Your task to perform on an android device: open a new tab in the chrome app Image 0: 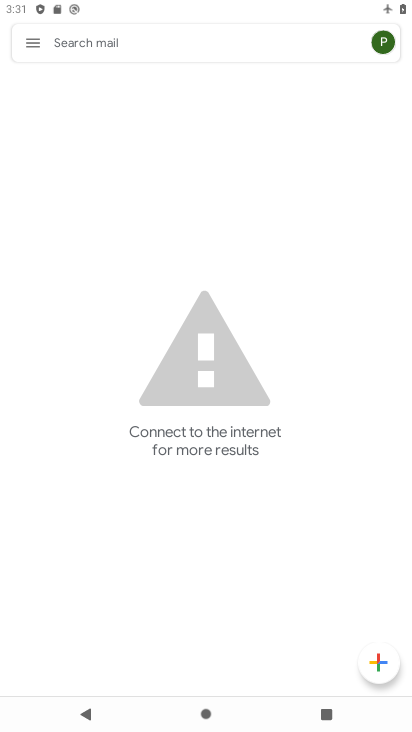
Step 0: press home button
Your task to perform on an android device: open a new tab in the chrome app Image 1: 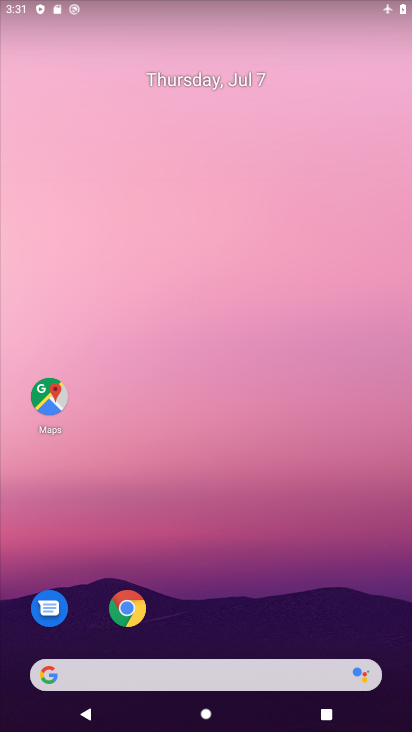
Step 1: click (126, 606)
Your task to perform on an android device: open a new tab in the chrome app Image 2: 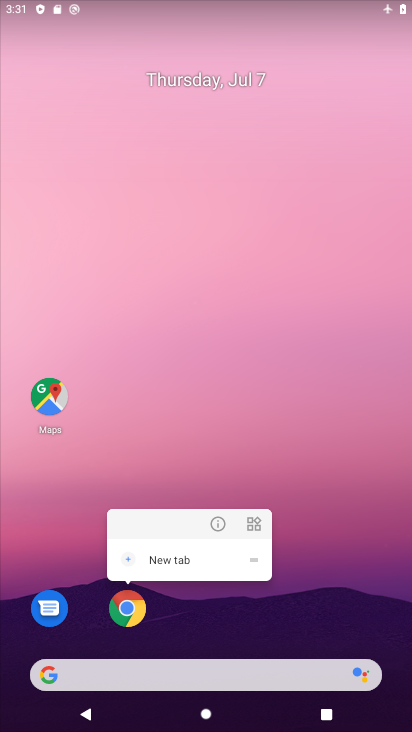
Step 2: click (126, 606)
Your task to perform on an android device: open a new tab in the chrome app Image 3: 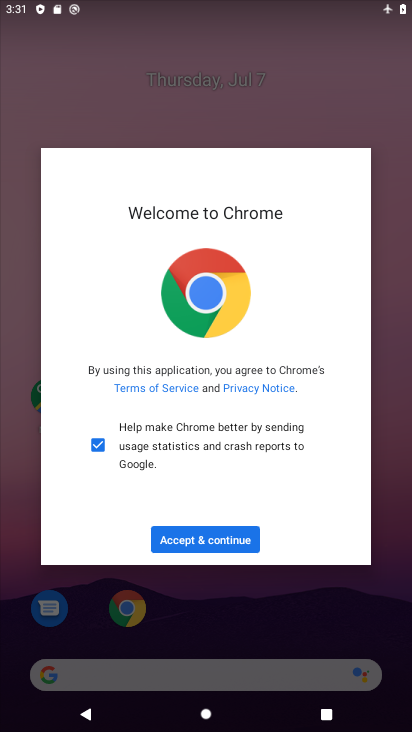
Step 3: click (220, 530)
Your task to perform on an android device: open a new tab in the chrome app Image 4: 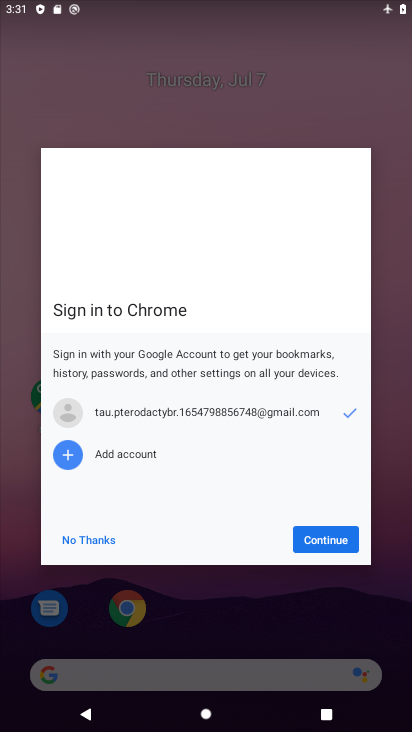
Step 4: click (304, 538)
Your task to perform on an android device: open a new tab in the chrome app Image 5: 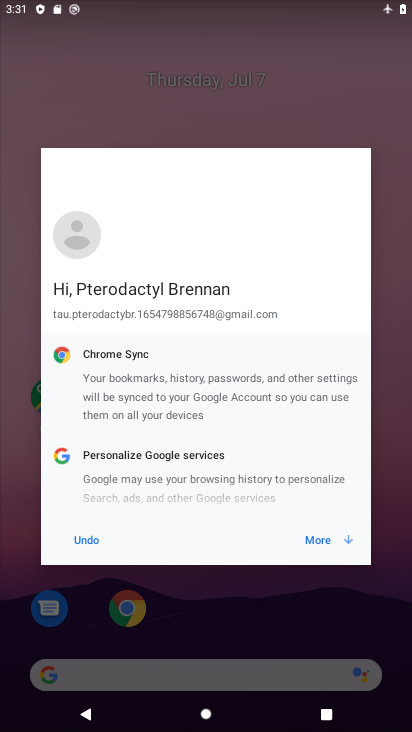
Step 5: click (304, 538)
Your task to perform on an android device: open a new tab in the chrome app Image 6: 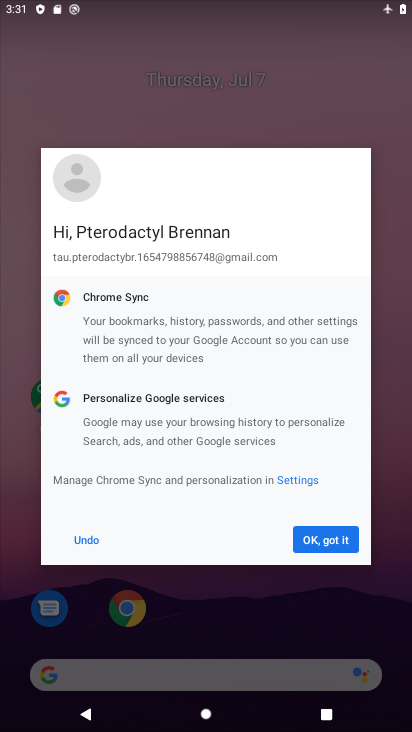
Step 6: click (313, 540)
Your task to perform on an android device: open a new tab in the chrome app Image 7: 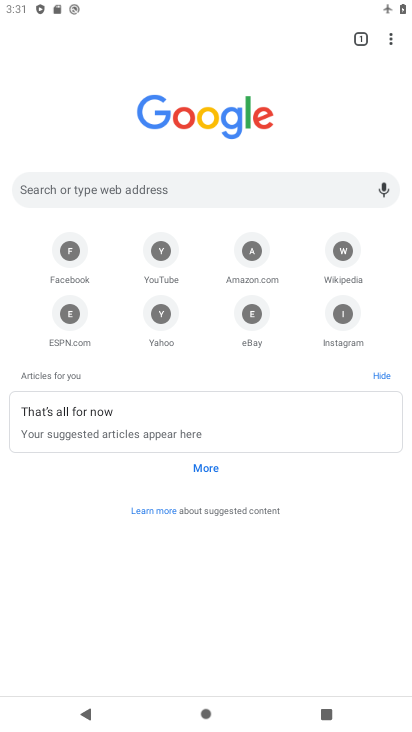
Step 7: click (394, 38)
Your task to perform on an android device: open a new tab in the chrome app Image 8: 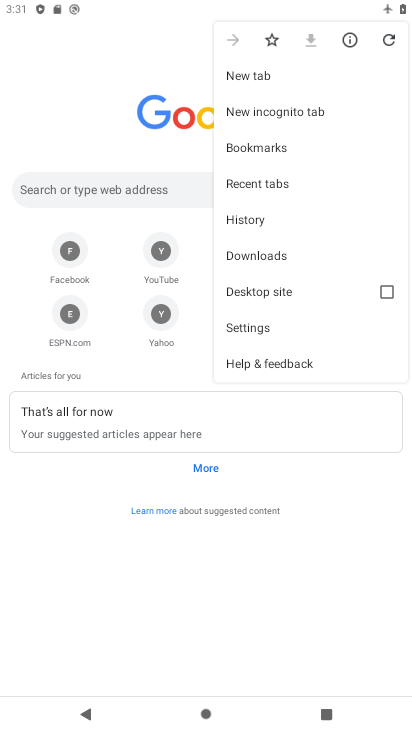
Step 8: click (289, 81)
Your task to perform on an android device: open a new tab in the chrome app Image 9: 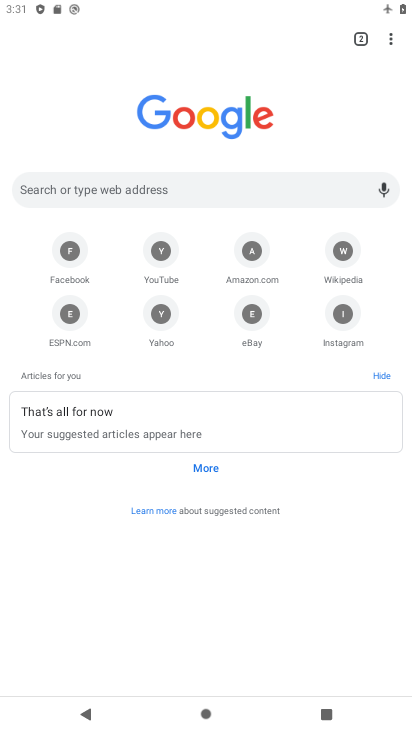
Step 9: task complete